Your task to perform on an android device: Add "dell xps" to the cart on bestbuy.com, then select checkout. Image 0: 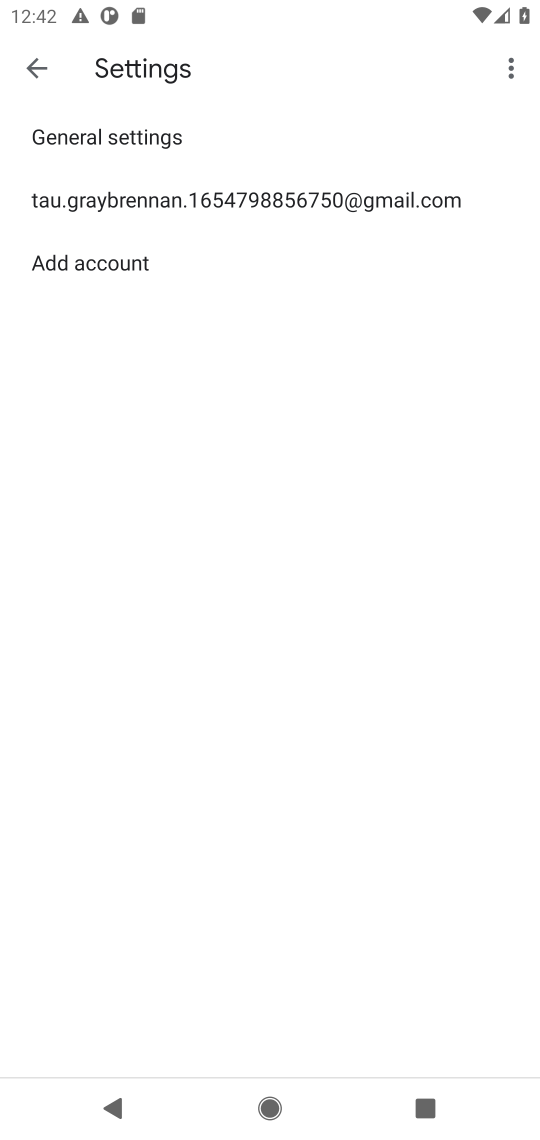
Step 0: press home button
Your task to perform on an android device: Add "dell xps" to the cart on bestbuy.com, then select checkout. Image 1: 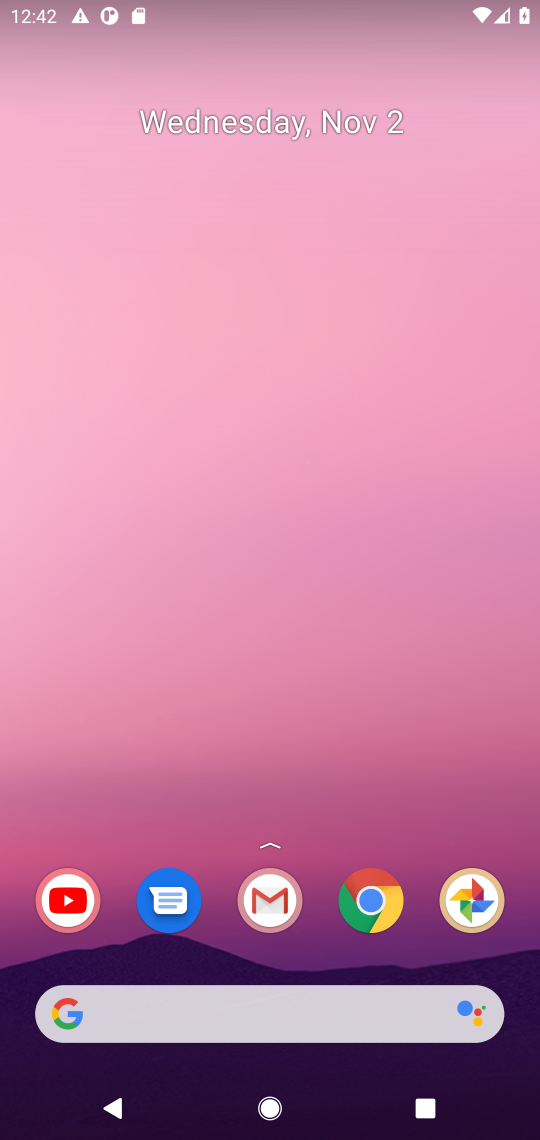
Step 1: click (387, 892)
Your task to perform on an android device: Add "dell xps" to the cart on bestbuy.com, then select checkout. Image 2: 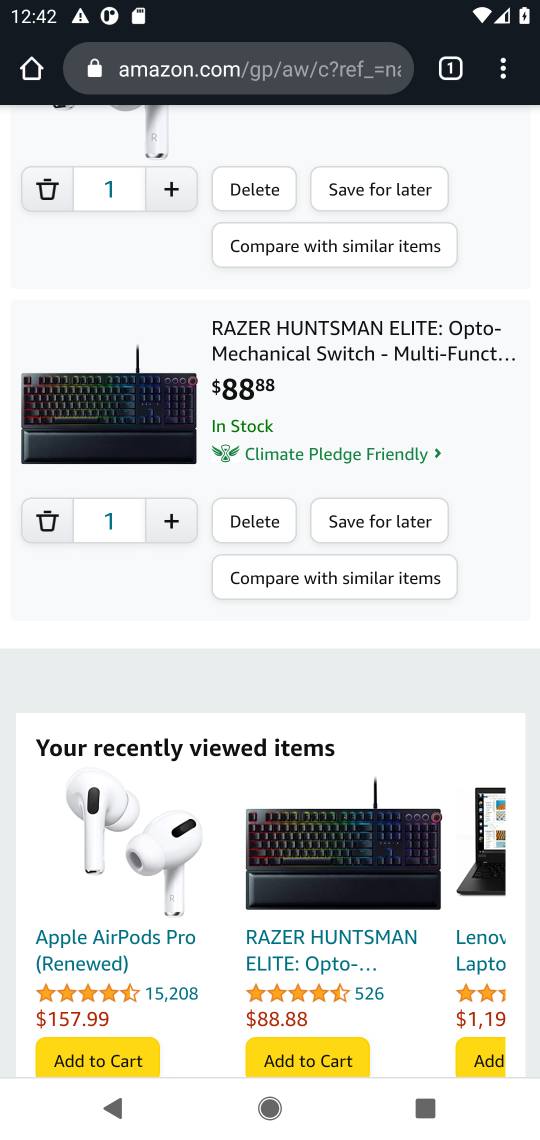
Step 2: click (190, 74)
Your task to perform on an android device: Add "dell xps" to the cart on bestbuy.com, then select checkout. Image 3: 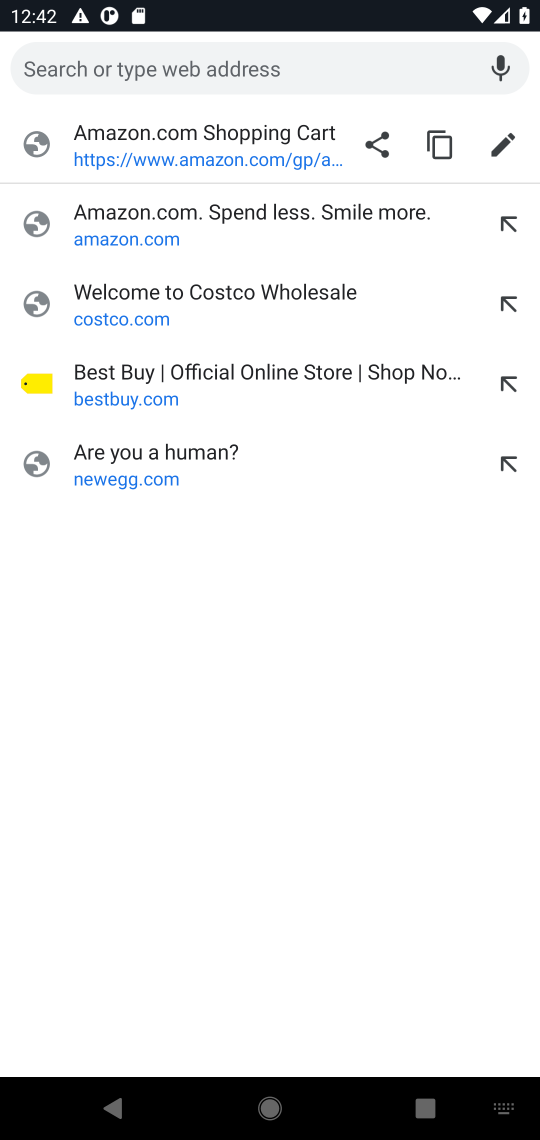
Step 3: click (114, 407)
Your task to perform on an android device: Add "dell xps" to the cart on bestbuy.com, then select checkout. Image 4: 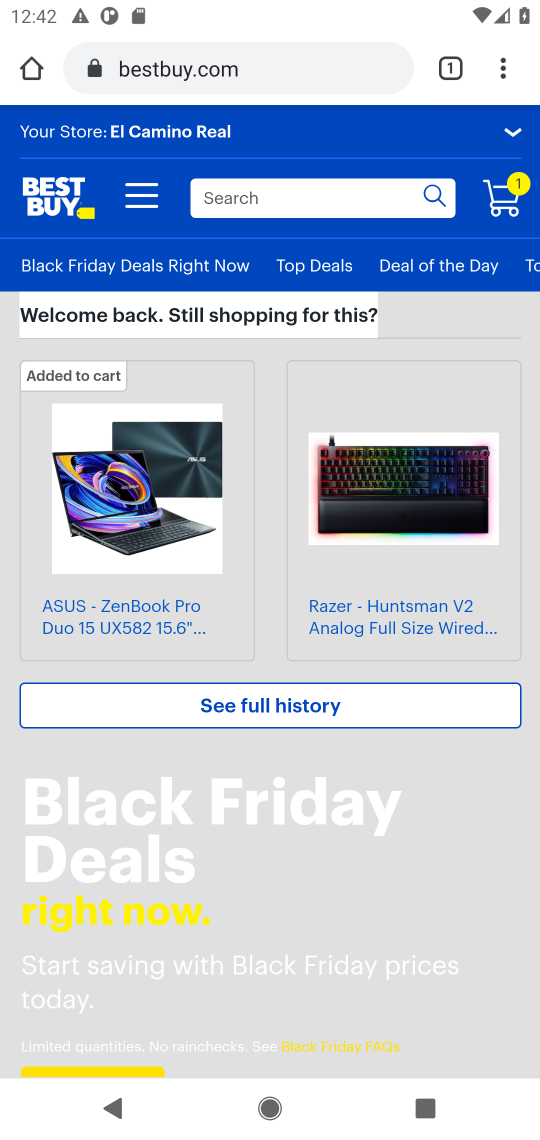
Step 4: click (230, 186)
Your task to perform on an android device: Add "dell xps" to the cart on bestbuy.com, then select checkout. Image 5: 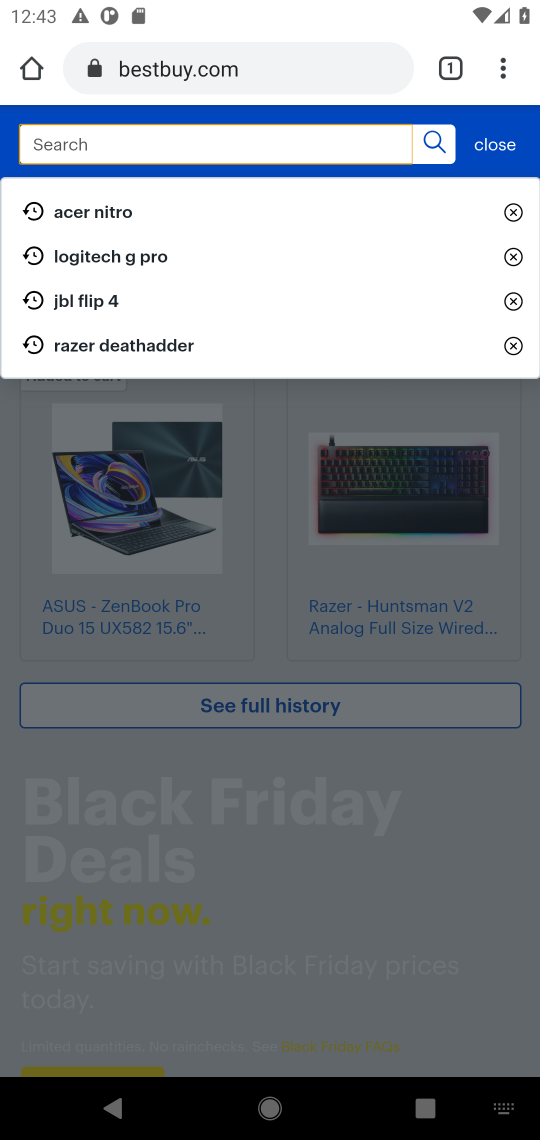
Step 5: type "dell xps"
Your task to perform on an android device: Add "dell xps" to the cart on bestbuy.com, then select checkout. Image 6: 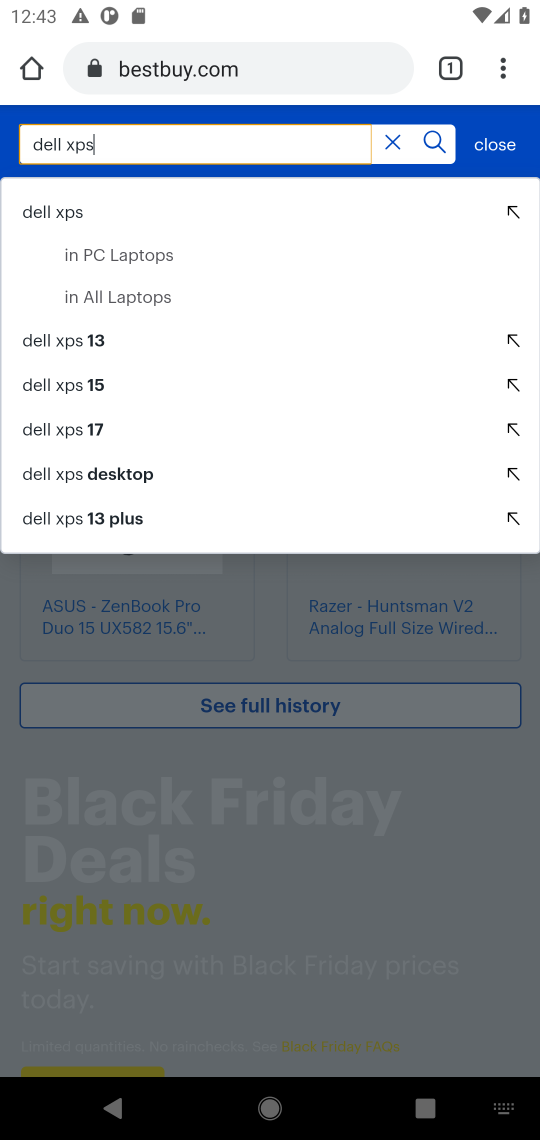
Step 6: click (437, 137)
Your task to perform on an android device: Add "dell xps" to the cart on bestbuy.com, then select checkout. Image 7: 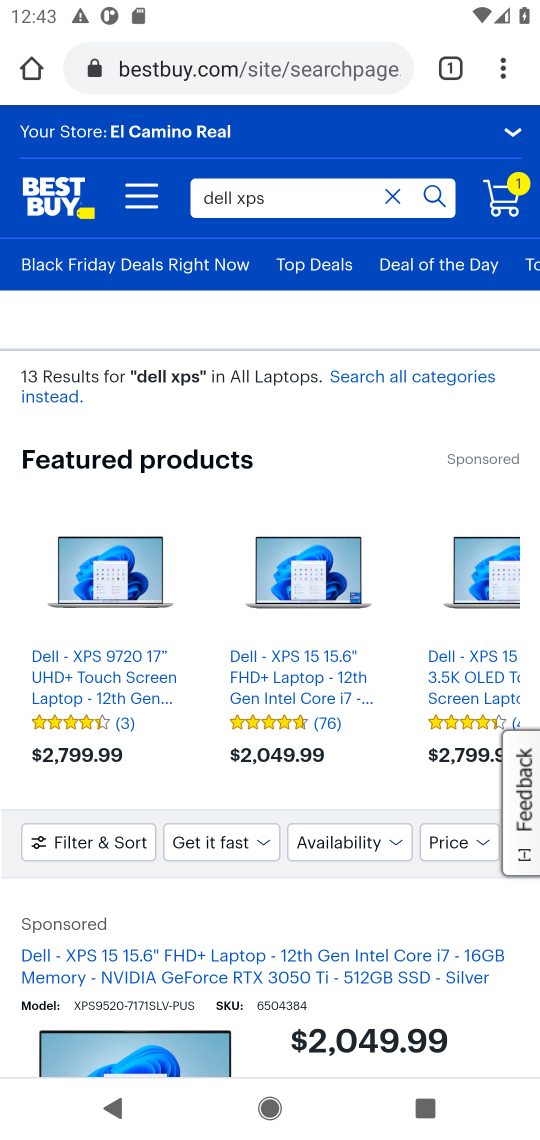
Step 7: drag from (210, 924) to (227, 388)
Your task to perform on an android device: Add "dell xps" to the cart on bestbuy.com, then select checkout. Image 8: 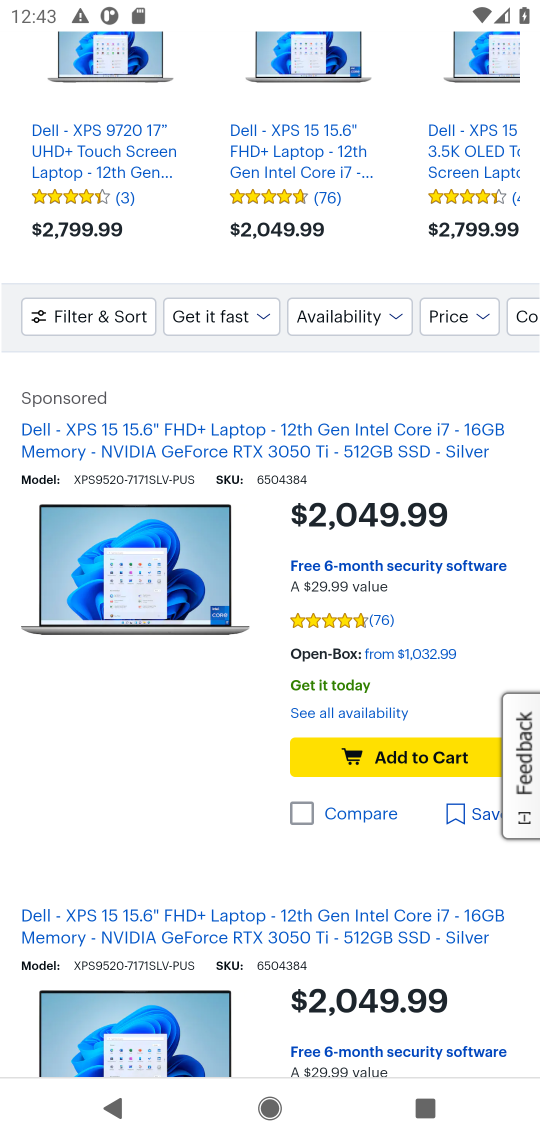
Step 8: click (330, 754)
Your task to perform on an android device: Add "dell xps" to the cart on bestbuy.com, then select checkout. Image 9: 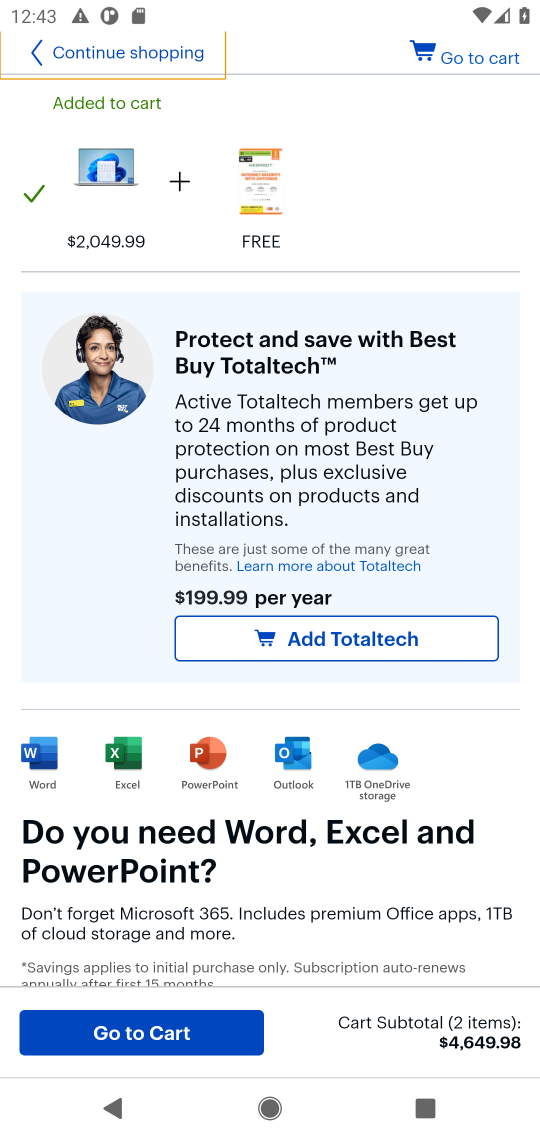
Step 9: click (129, 1043)
Your task to perform on an android device: Add "dell xps" to the cart on bestbuy.com, then select checkout. Image 10: 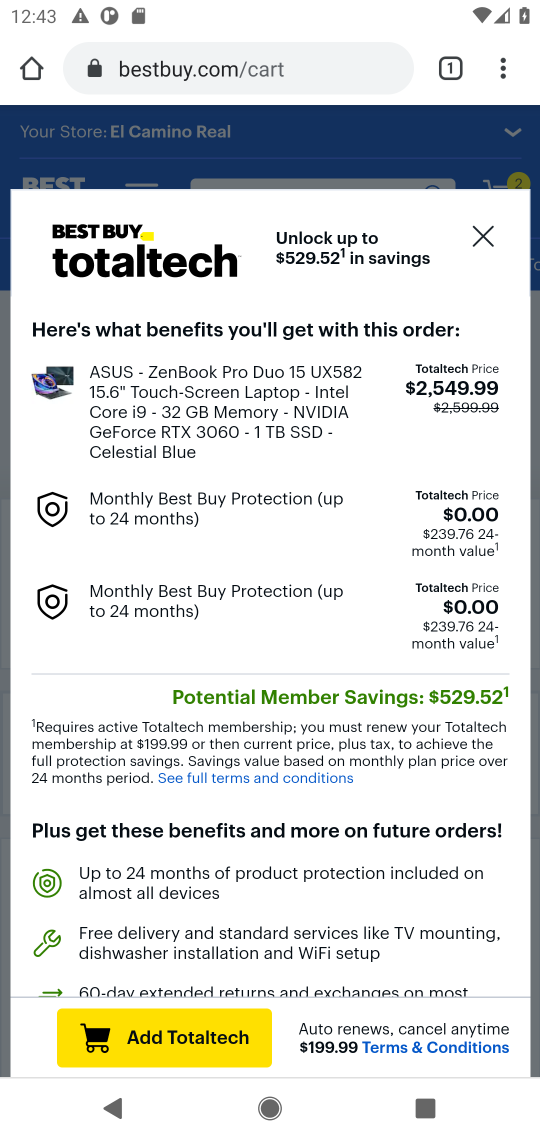
Step 10: click (469, 232)
Your task to perform on an android device: Add "dell xps" to the cart on bestbuy.com, then select checkout. Image 11: 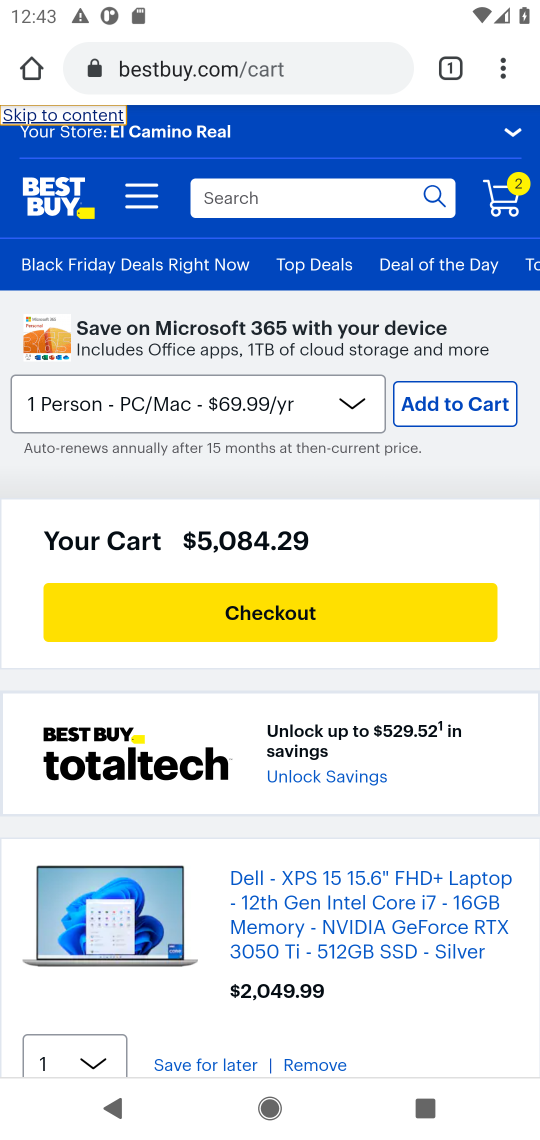
Step 11: click (123, 588)
Your task to perform on an android device: Add "dell xps" to the cart on bestbuy.com, then select checkout. Image 12: 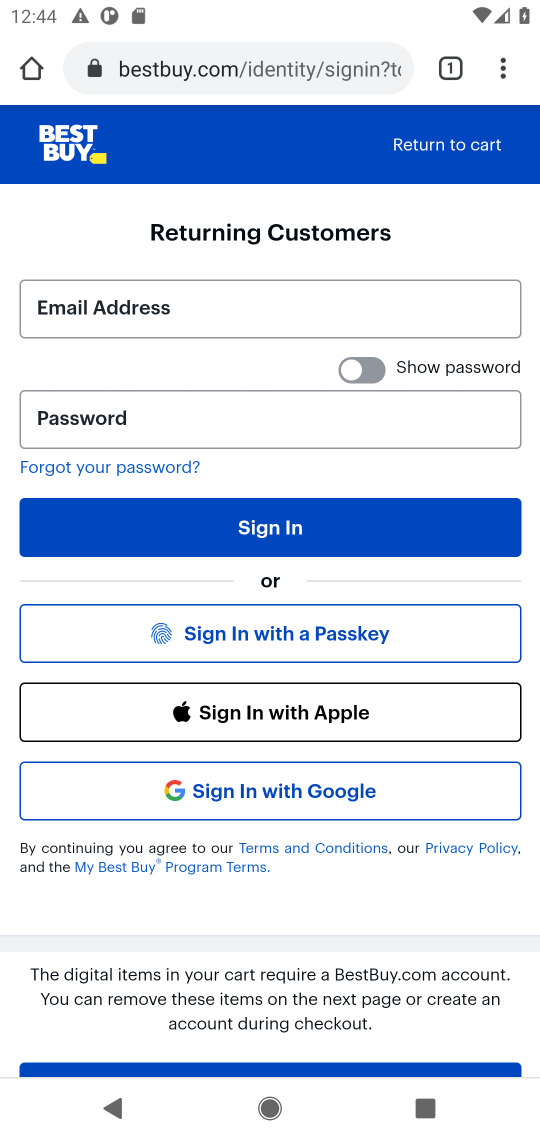
Step 12: task complete